Your task to perform on an android device: Show me the alarms in the clock app Image 0: 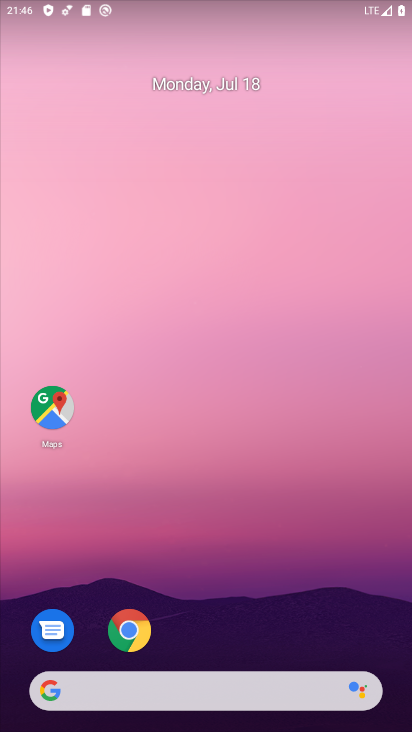
Step 0: drag from (199, 555) to (159, 198)
Your task to perform on an android device: Show me the alarms in the clock app Image 1: 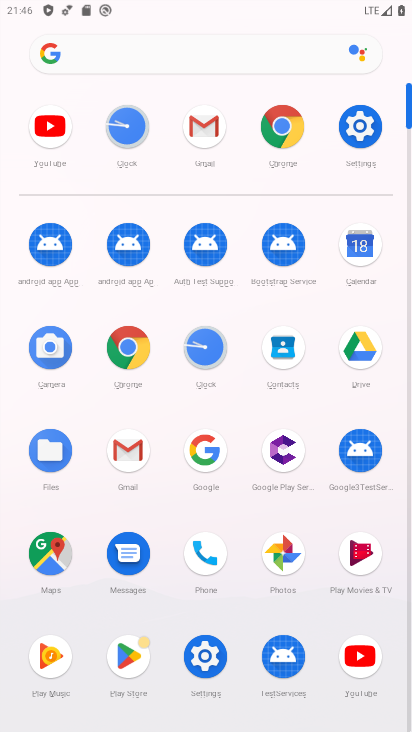
Step 1: click (216, 340)
Your task to perform on an android device: Show me the alarms in the clock app Image 2: 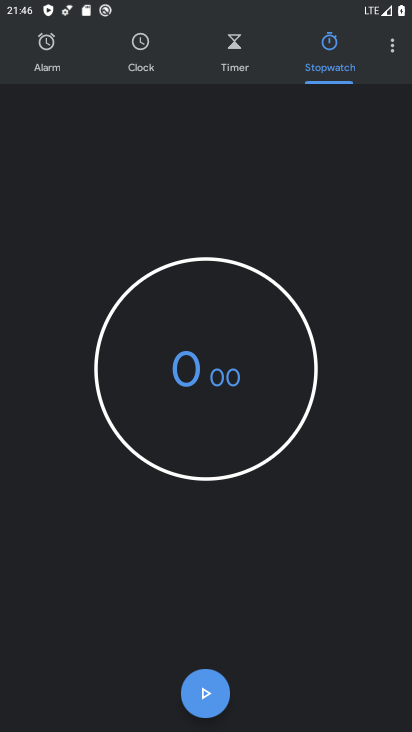
Step 2: click (393, 43)
Your task to perform on an android device: Show me the alarms in the clock app Image 3: 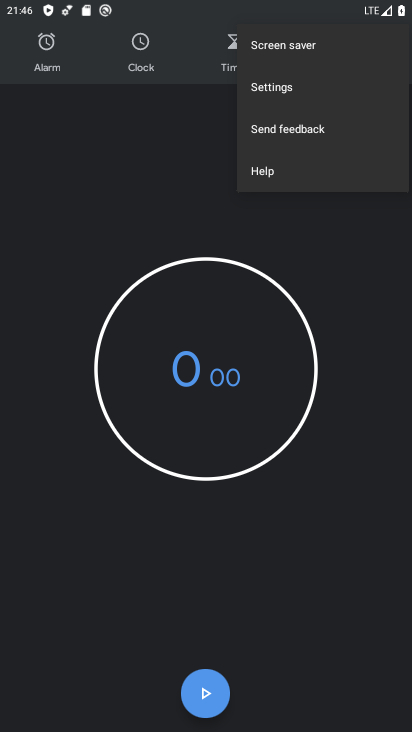
Step 3: click (290, 82)
Your task to perform on an android device: Show me the alarms in the clock app Image 4: 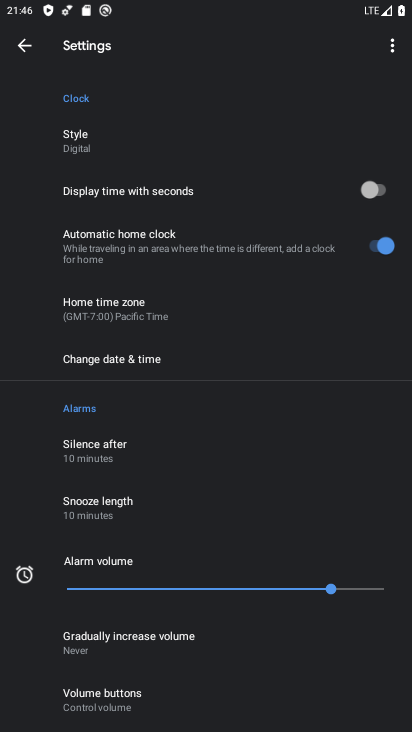
Step 4: click (20, 36)
Your task to perform on an android device: Show me the alarms in the clock app Image 5: 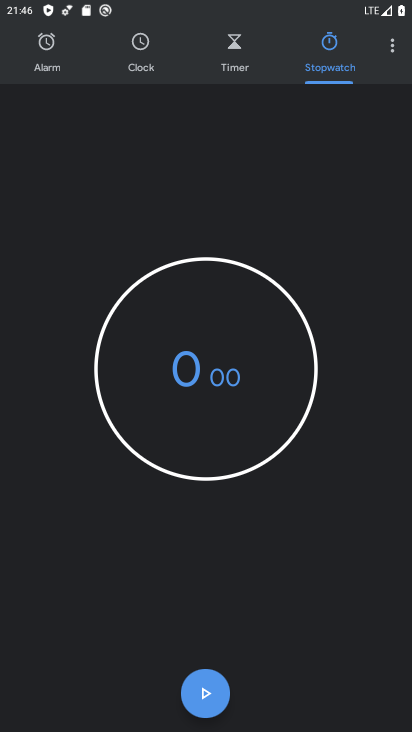
Step 5: click (45, 74)
Your task to perform on an android device: Show me the alarms in the clock app Image 6: 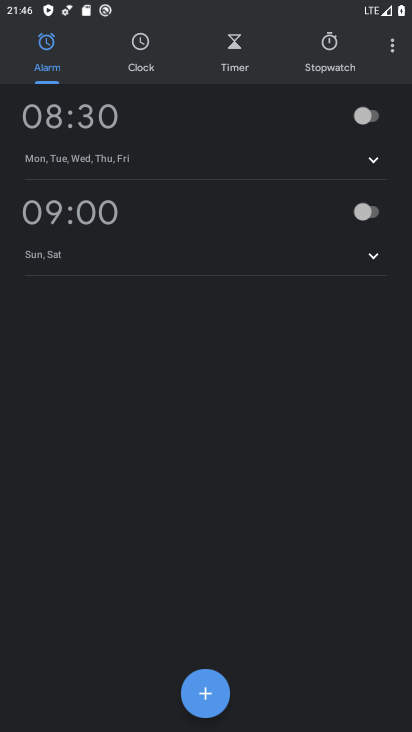
Step 6: task complete